Your task to perform on an android device: Play the last video I watched on Youtube Image 0: 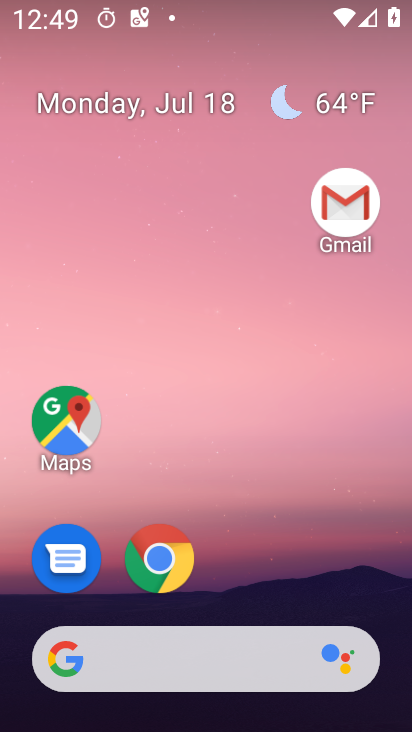
Step 0: drag from (320, 564) to (396, 53)
Your task to perform on an android device: Play the last video I watched on Youtube Image 1: 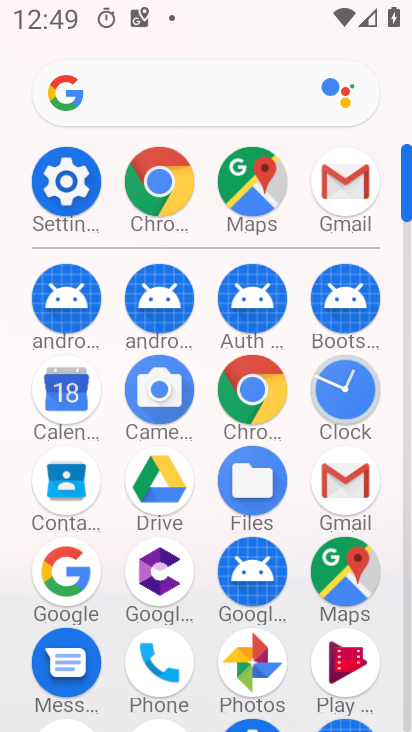
Step 1: drag from (388, 637) to (395, 405)
Your task to perform on an android device: Play the last video I watched on Youtube Image 2: 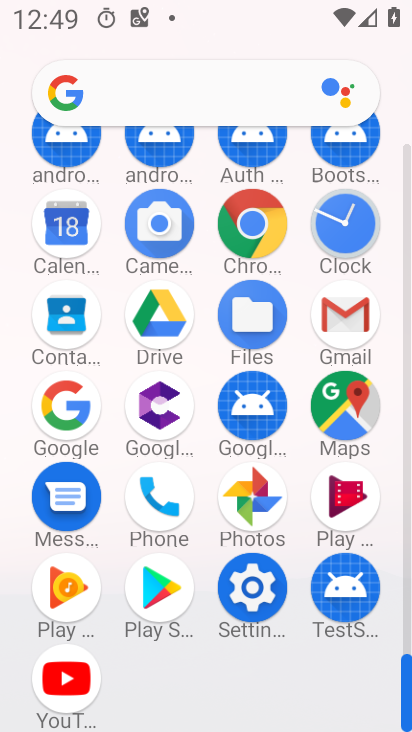
Step 2: click (74, 671)
Your task to perform on an android device: Play the last video I watched on Youtube Image 3: 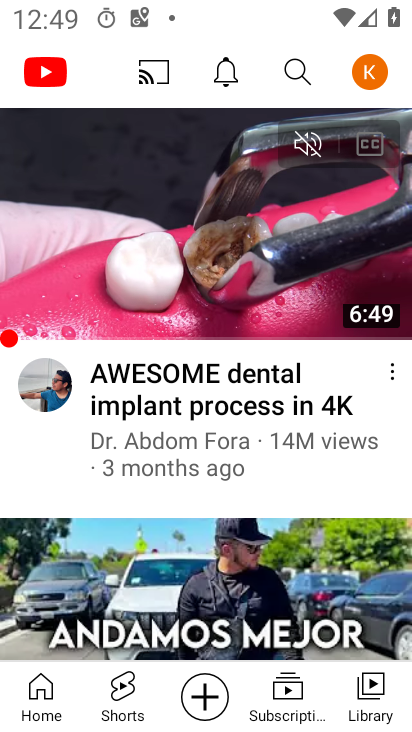
Step 3: click (368, 694)
Your task to perform on an android device: Play the last video I watched on Youtube Image 4: 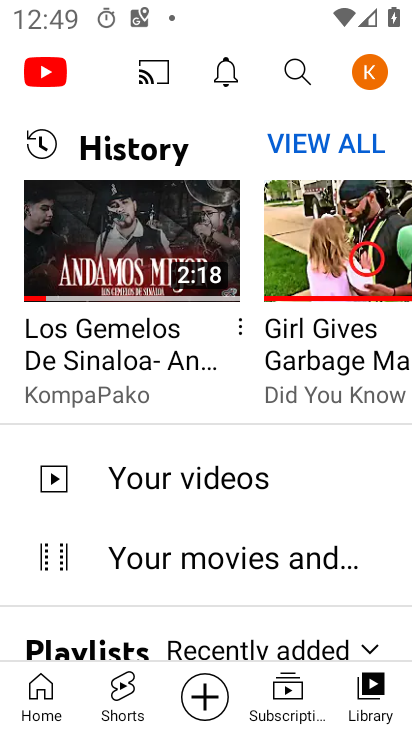
Step 4: click (169, 205)
Your task to perform on an android device: Play the last video I watched on Youtube Image 5: 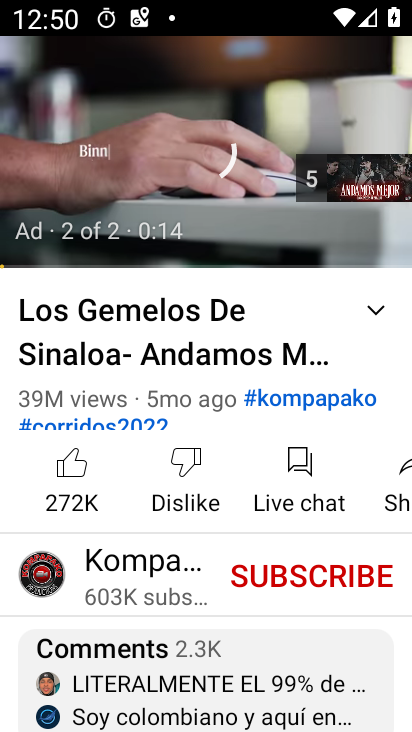
Step 5: task complete